Your task to perform on an android device: Open calendar and show me the second week of next month Image 0: 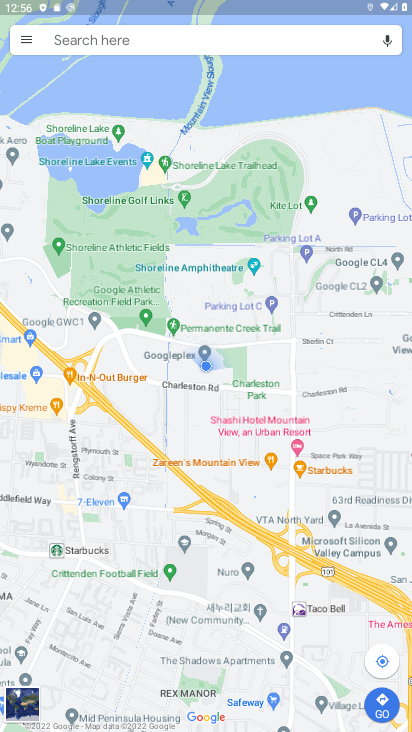
Step 0: press home button
Your task to perform on an android device: Open calendar and show me the second week of next month Image 1: 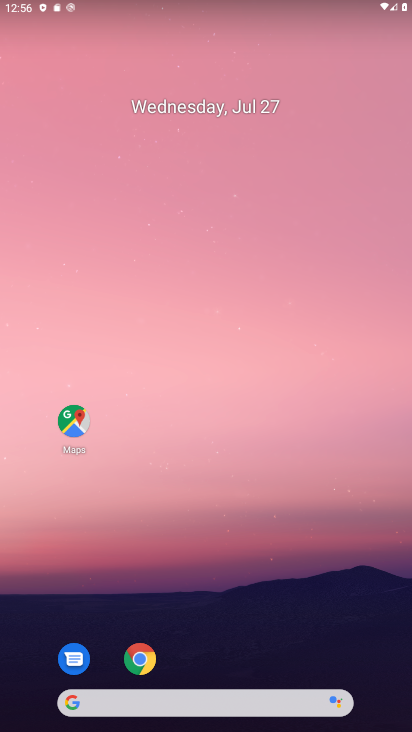
Step 1: drag from (289, 644) to (369, 5)
Your task to perform on an android device: Open calendar and show me the second week of next month Image 2: 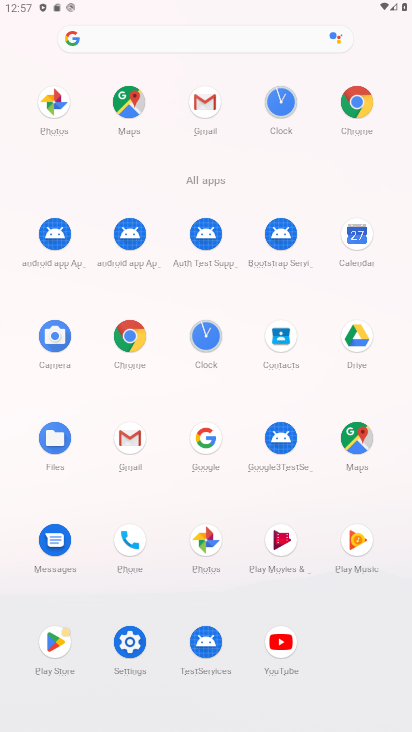
Step 2: click (349, 239)
Your task to perform on an android device: Open calendar and show me the second week of next month Image 3: 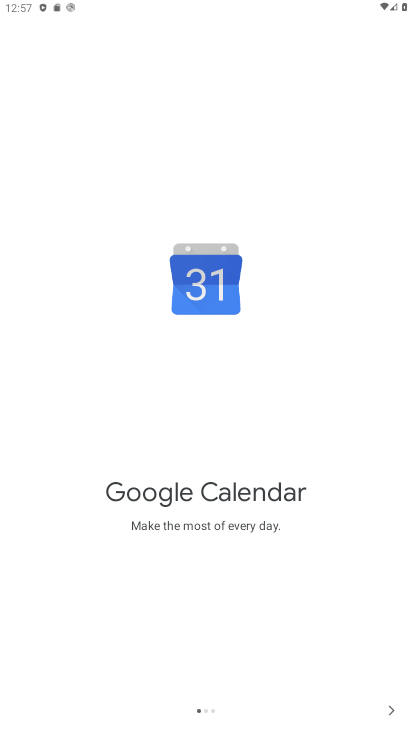
Step 3: click (394, 708)
Your task to perform on an android device: Open calendar and show me the second week of next month Image 4: 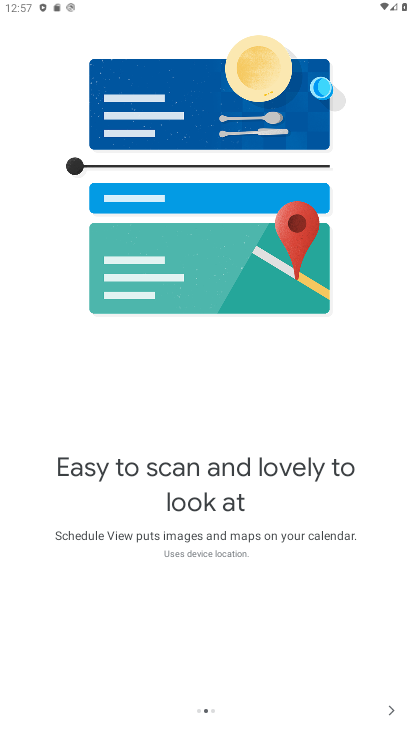
Step 4: click (394, 719)
Your task to perform on an android device: Open calendar and show me the second week of next month Image 5: 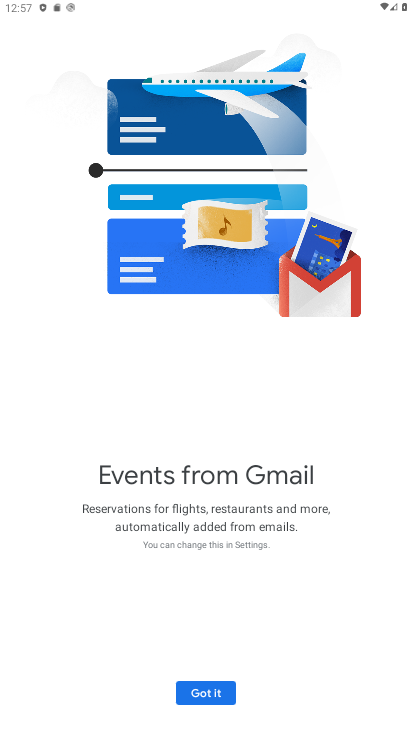
Step 5: click (222, 688)
Your task to perform on an android device: Open calendar and show me the second week of next month Image 6: 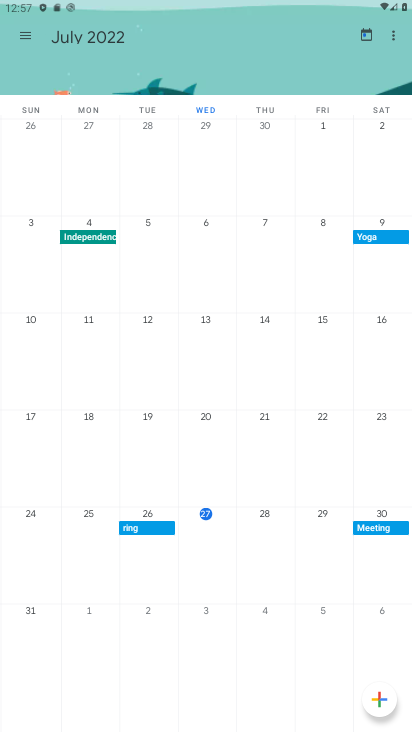
Step 6: drag from (280, 370) to (19, 434)
Your task to perform on an android device: Open calendar and show me the second week of next month Image 7: 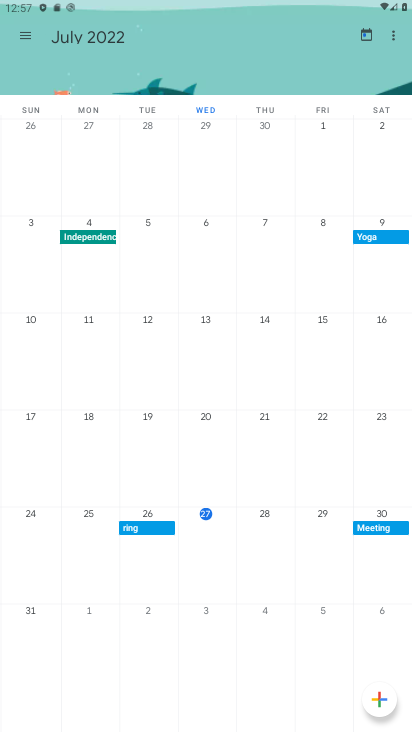
Step 7: click (268, 328)
Your task to perform on an android device: Open calendar and show me the second week of next month Image 8: 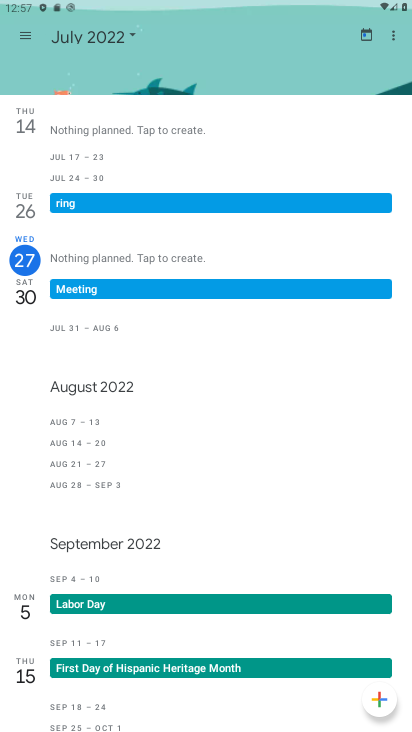
Step 8: task complete